Your task to perform on an android device: change the clock display to show seconds Image 0: 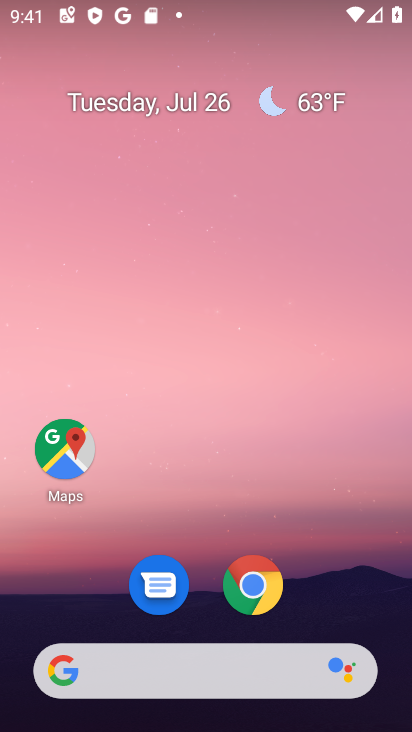
Step 0: drag from (332, 559) to (311, 0)
Your task to perform on an android device: change the clock display to show seconds Image 1: 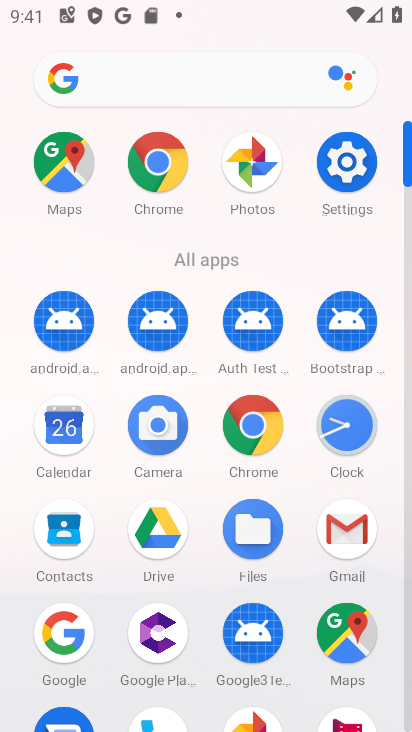
Step 1: click (345, 420)
Your task to perform on an android device: change the clock display to show seconds Image 2: 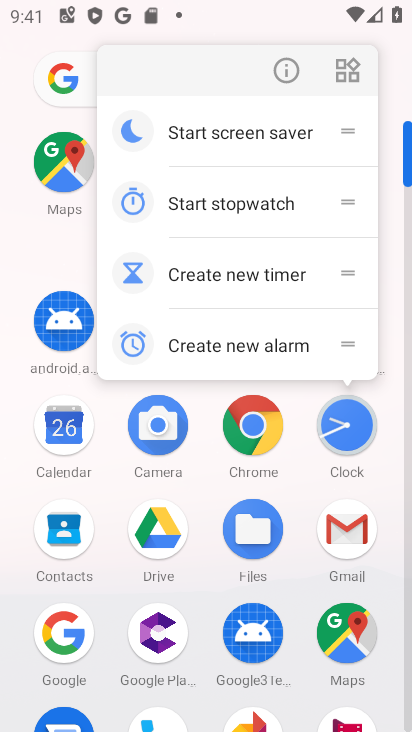
Step 2: click (345, 420)
Your task to perform on an android device: change the clock display to show seconds Image 3: 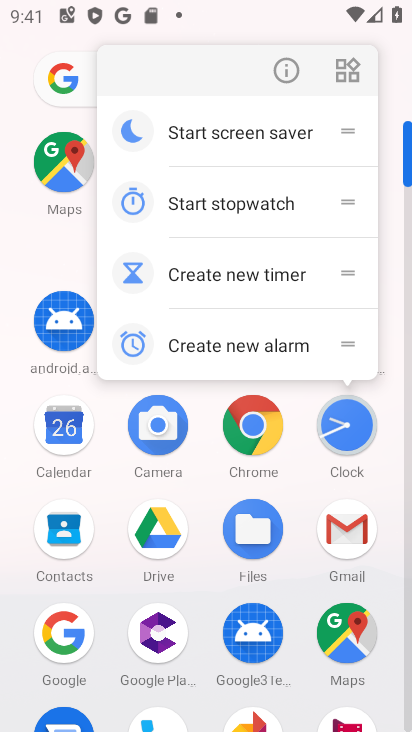
Step 3: click (345, 419)
Your task to perform on an android device: change the clock display to show seconds Image 4: 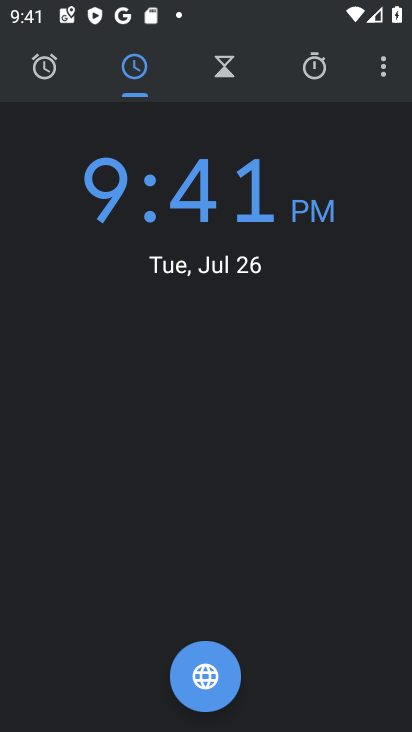
Step 4: click (380, 60)
Your task to perform on an android device: change the clock display to show seconds Image 5: 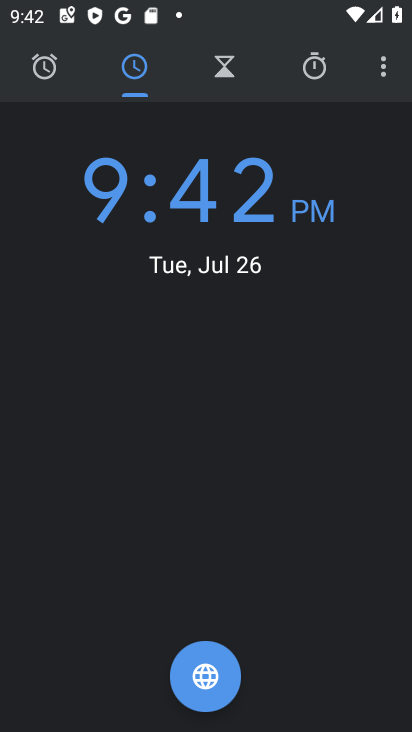
Step 5: click (380, 62)
Your task to perform on an android device: change the clock display to show seconds Image 6: 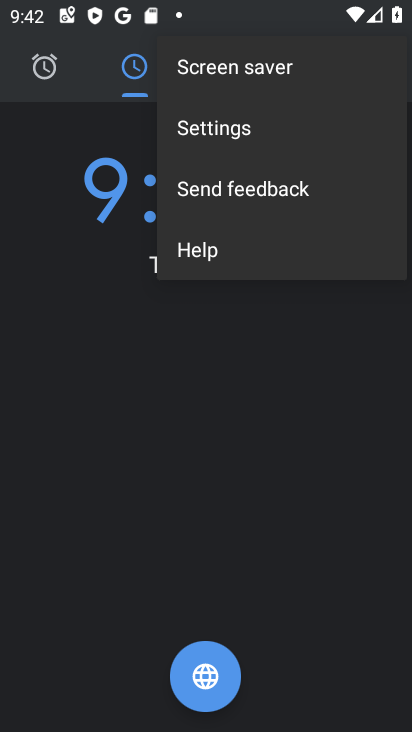
Step 6: click (303, 134)
Your task to perform on an android device: change the clock display to show seconds Image 7: 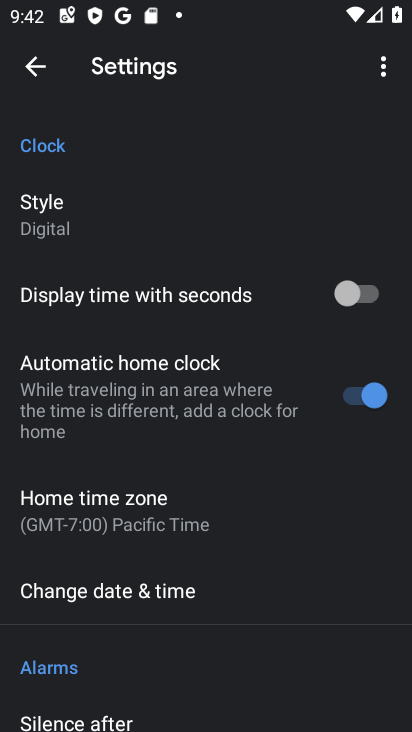
Step 7: click (354, 292)
Your task to perform on an android device: change the clock display to show seconds Image 8: 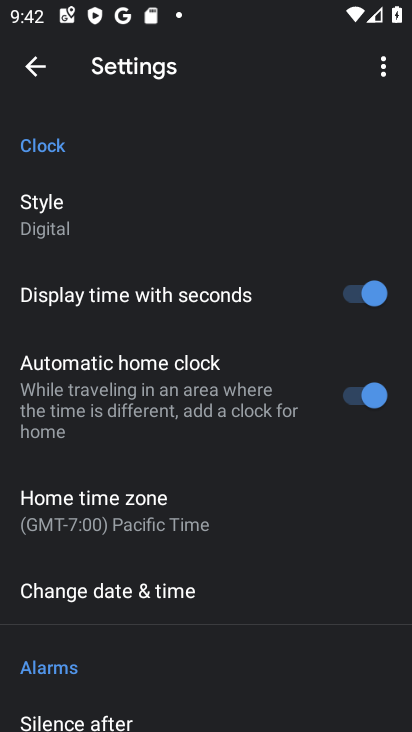
Step 8: click (38, 67)
Your task to perform on an android device: change the clock display to show seconds Image 9: 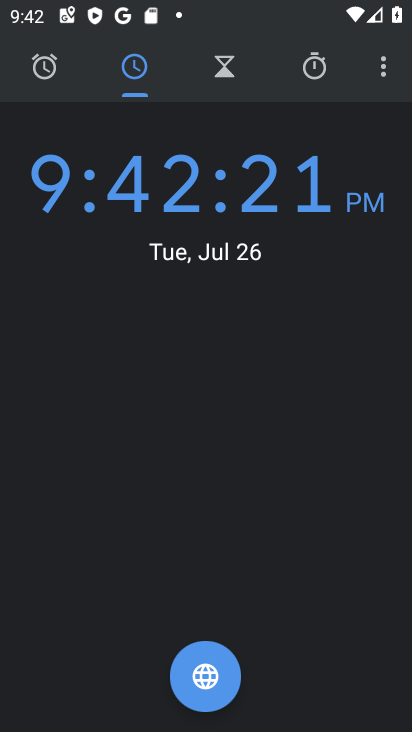
Step 9: task complete